Your task to perform on an android device: find which apps use the phone's location Image 0: 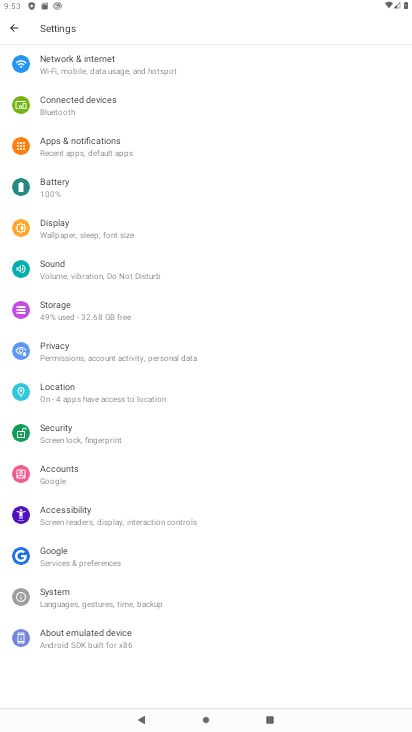
Step 0: click (161, 393)
Your task to perform on an android device: find which apps use the phone's location Image 1: 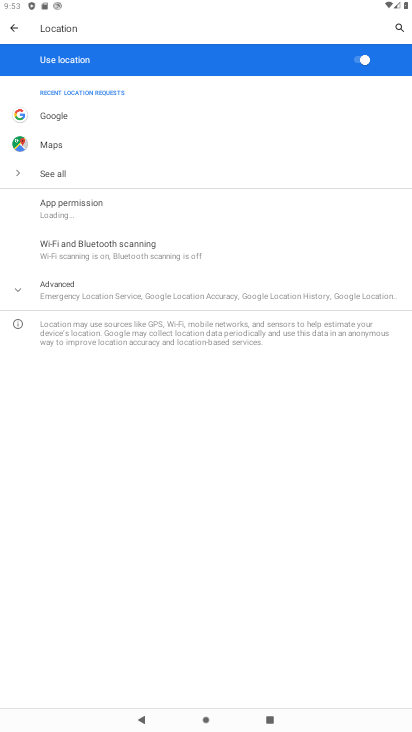
Step 1: click (179, 210)
Your task to perform on an android device: find which apps use the phone's location Image 2: 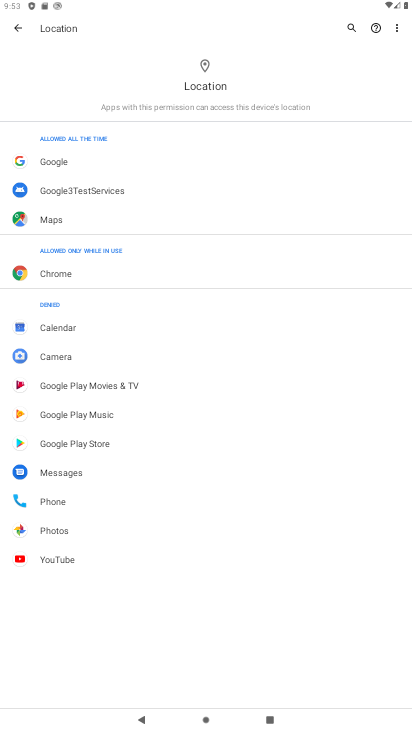
Step 2: task complete